Your task to perform on an android device: set default search engine in the chrome app Image 0: 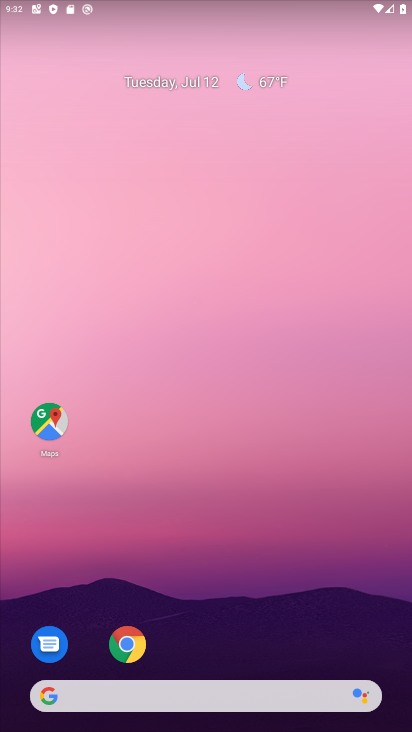
Step 0: drag from (175, 623) to (278, 0)
Your task to perform on an android device: set default search engine in the chrome app Image 1: 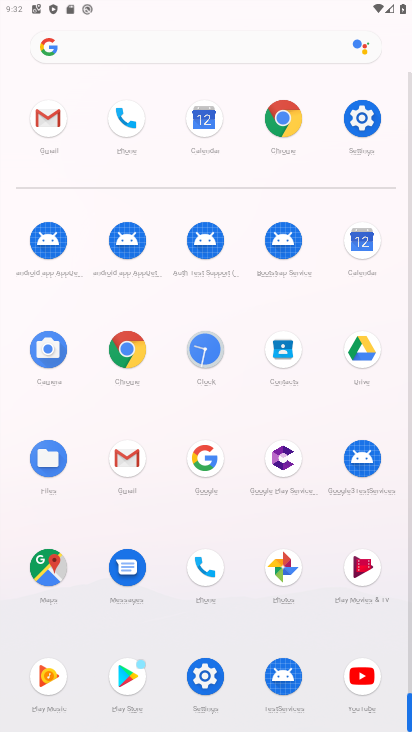
Step 1: click (124, 352)
Your task to perform on an android device: set default search engine in the chrome app Image 2: 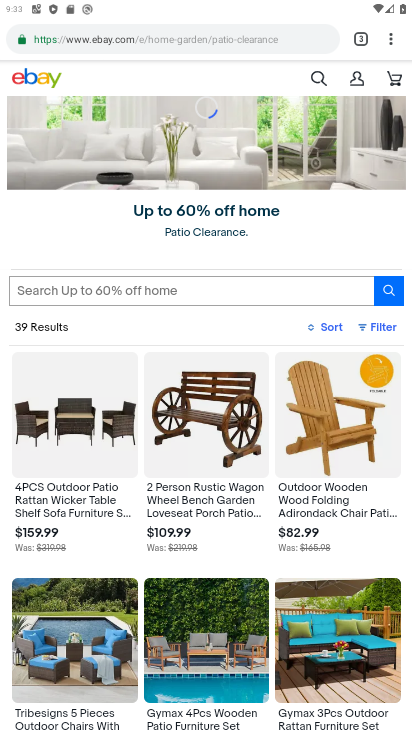
Step 2: drag from (243, 502) to (291, 657)
Your task to perform on an android device: set default search engine in the chrome app Image 3: 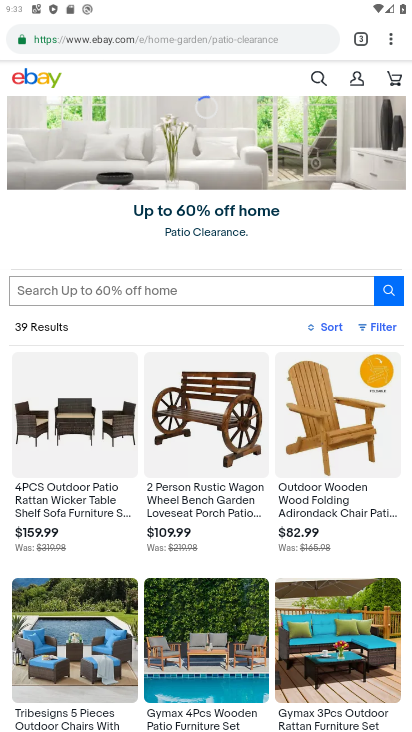
Step 3: press home button
Your task to perform on an android device: set default search engine in the chrome app Image 4: 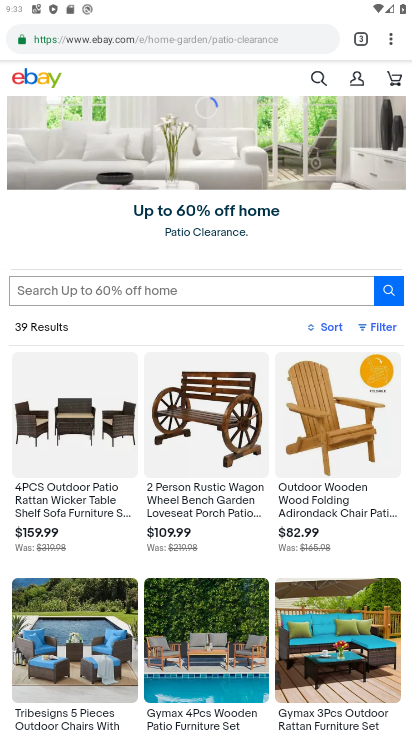
Step 4: drag from (189, 451) to (279, 54)
Your task to perform on an android device: set default search engine in the chrome app Image 5: 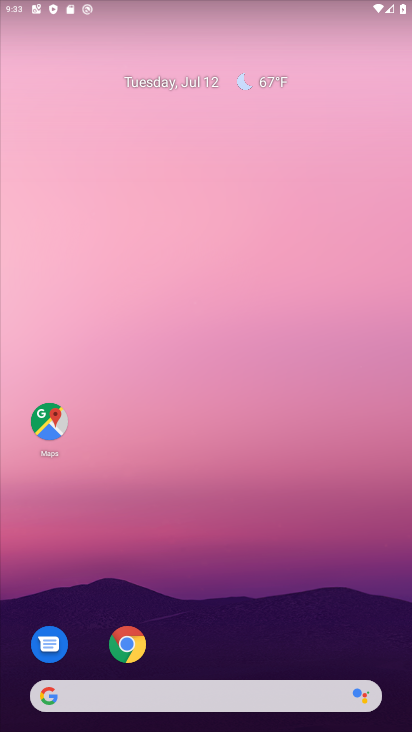
Step 5: drag from (243, 537) to (265, 298)
Your task to perform on an android device: set default search engine in the chrome app Image 6: 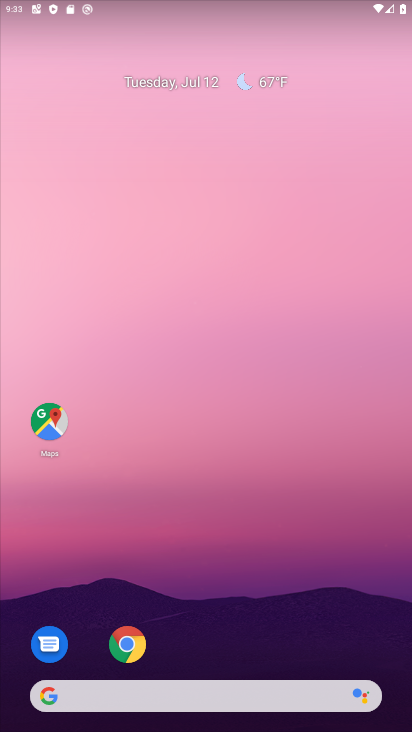
Step 6: click (266, 185)
Your task to perform on an android device: set default search engine in the chrome app Image 7: 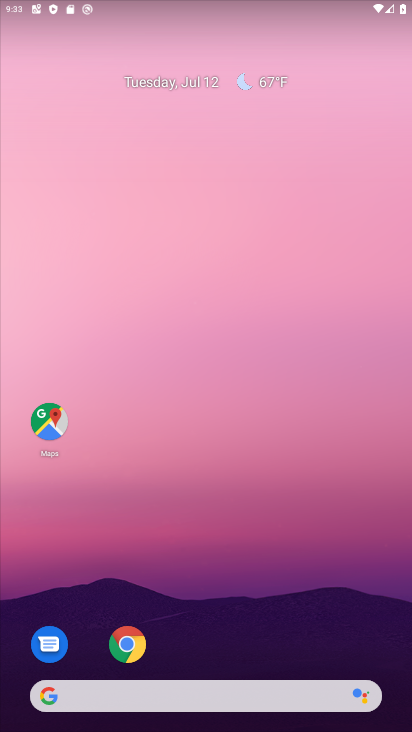
Step 7: drag from (177, 657) to (253, 231)
Your task to perform on an android device: set default search engine in the chrome app Image 8: 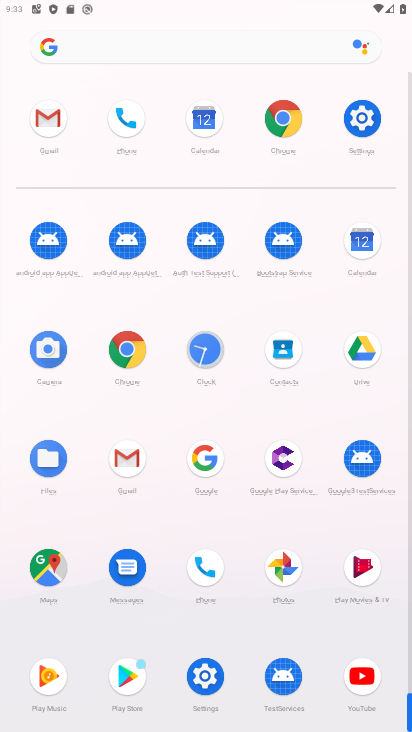
Step 8: click (127, 349)
Your task to perform on an android device: set default search engine in the chrome app Image 9: 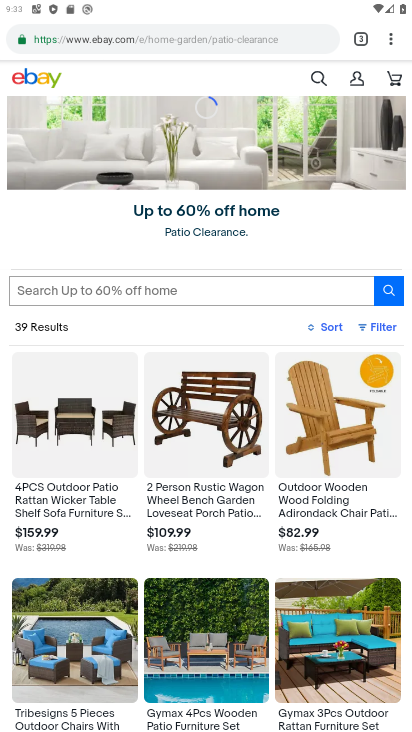
Step 9: drag from (203, 512) to (232, 300)
Your task to perform on an android device: set default search engine in the chrome app Image 10: 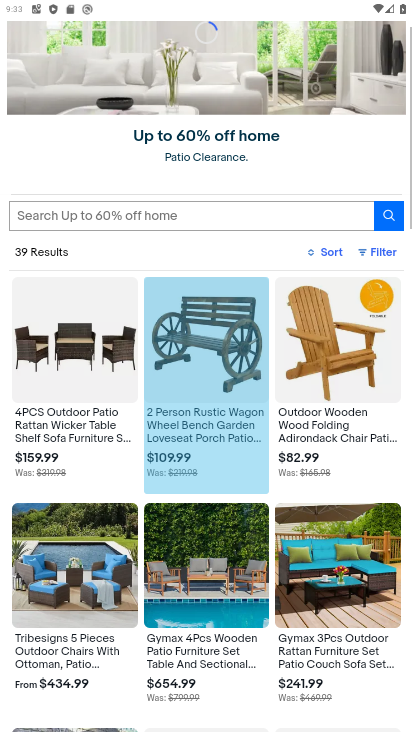
Step 10: drag from (241, 246) to (375, 718)
Your task to perform on an android device: set default search engine in the chrome app Image 11: 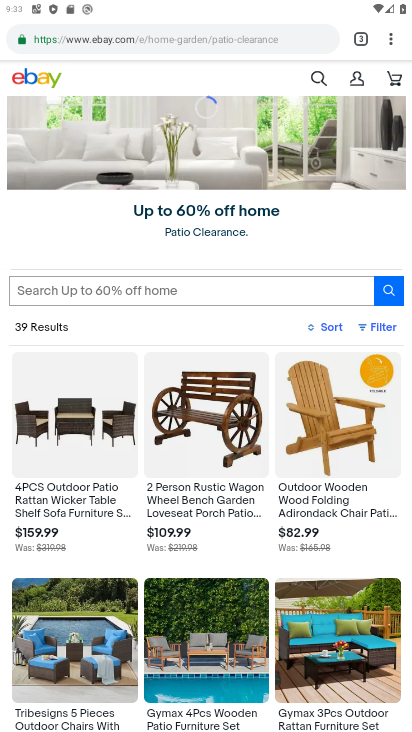
Step 11: click (395, 29)
Your task to perform on an android device: set default search engine in the chrome app Image 12: 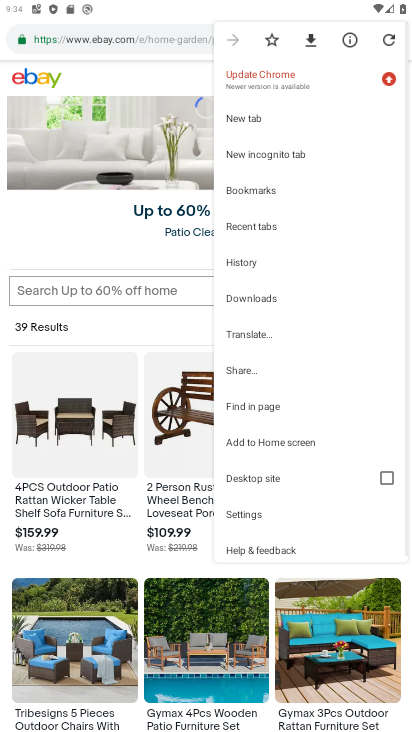
Step 12: click (267, 518)
Your task to perform on an android device: set default search engine in the chrome app Image 13: 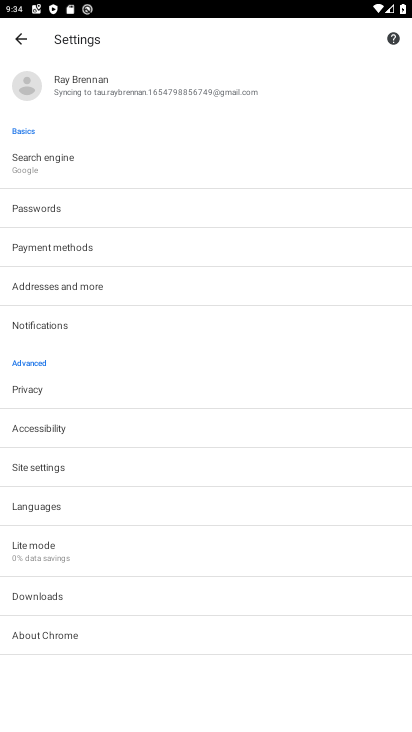
Step 13: click (64, 155)
Your task to perform on an android device: set default search engine in the chrome app Image 14: 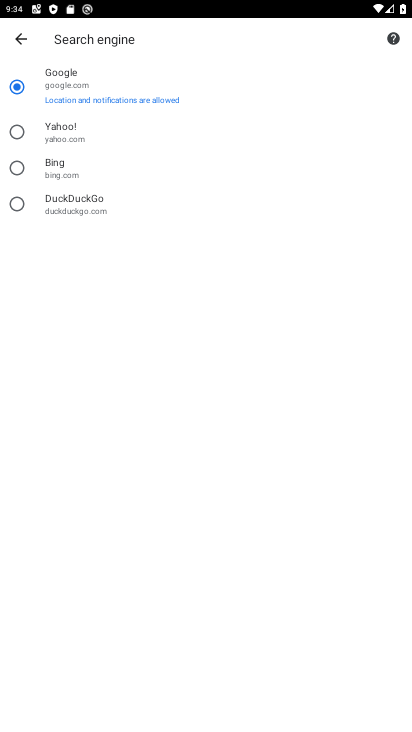
Step 14: task complete